Your task to perform on an android device: change the clock display to analog Image 0: 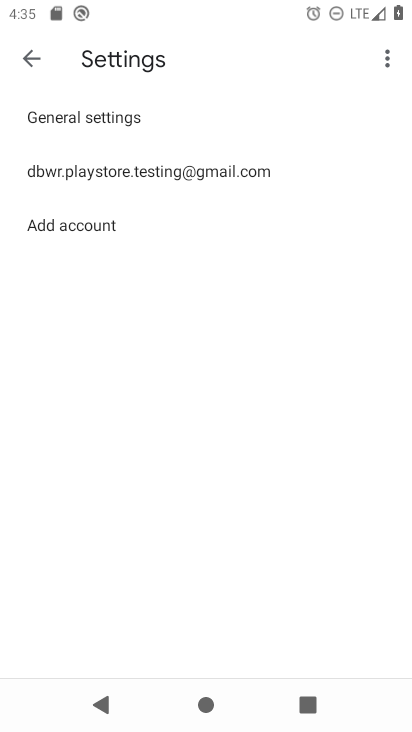
Step 0: press home button
Your task to perform on an android device: change the clock display to analog Image 1: 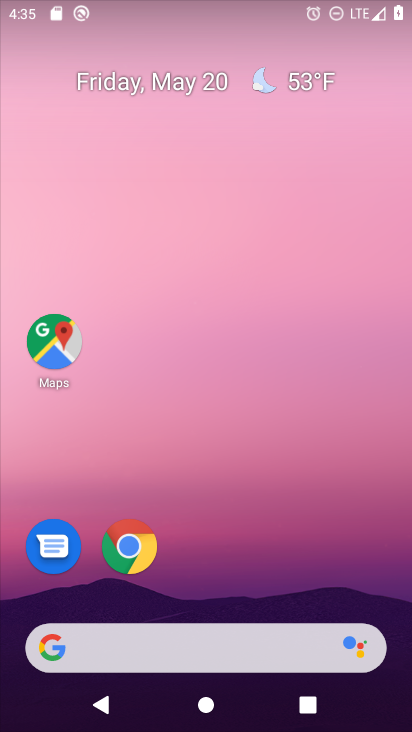
Step 1: drag from (334, 550) to (319, 146)
Your task to perform on an android device: change the clock display to analog Image 2: 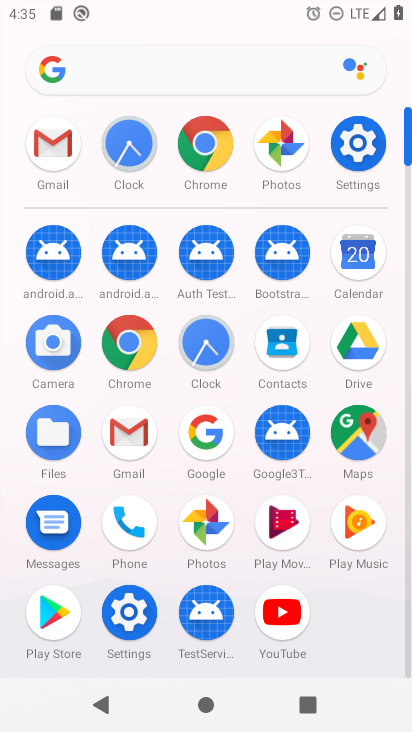
Step 2: click (213, 349)
Your task to perform on an android device: change the clock display to analog Image 3: 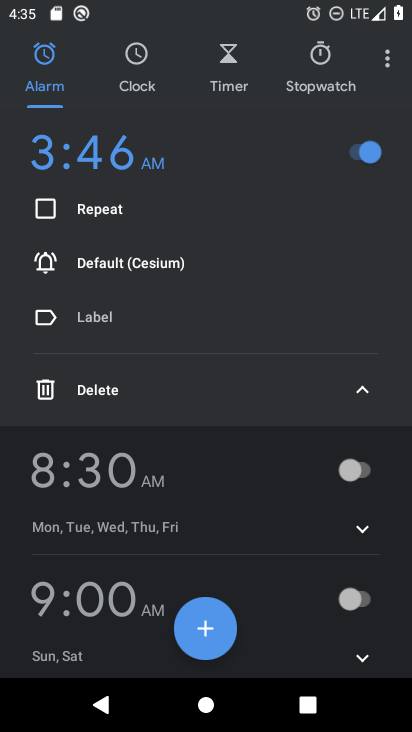
Step 3: drag from (385, 51) to (286, 106)
Your task to perform on an android device: change the clock display to analog Image 4: 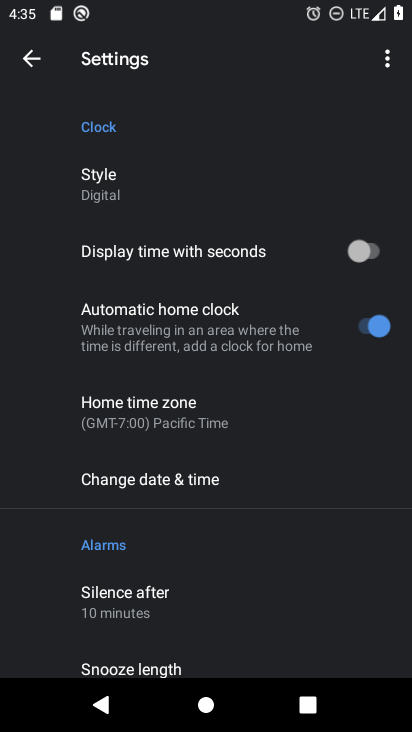
Step 4: click (100, 188)
Your task to perform on an android device: change the clock display to analog Image 5: 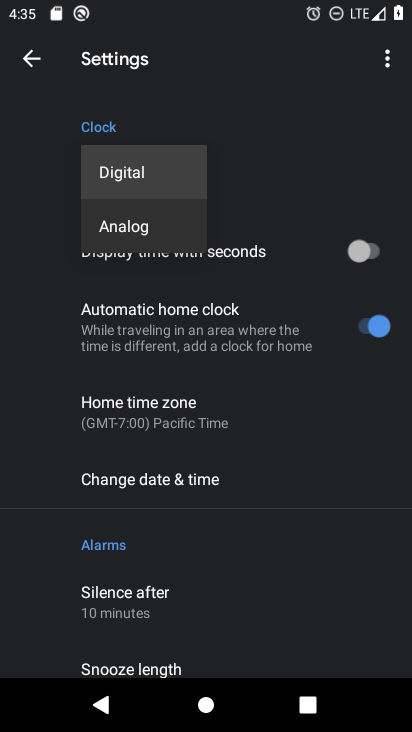
Step 5: click (129, 224)
Your task to perform on an android device: change the clock display to analog Image 6: 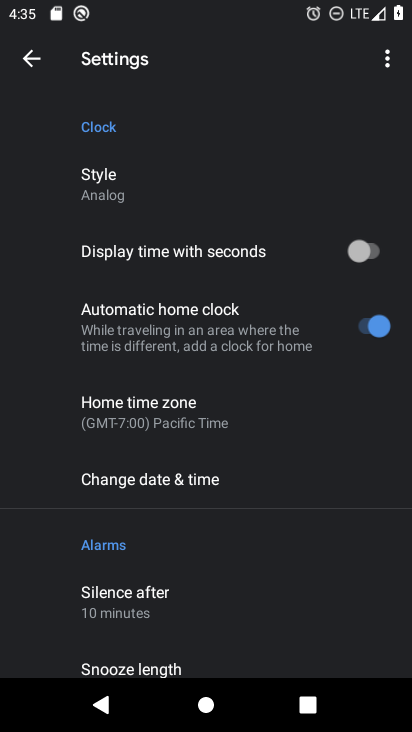
Step 6: task complete